Your task to perform on an android device: Check the weather Image 0: 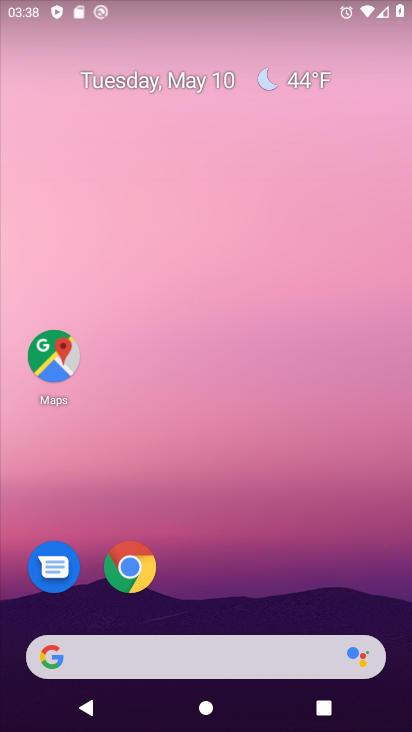
Step 0: drag from (217, 580) to (252, 170)
Your task to perform on an android device: Check the weather Image 1: 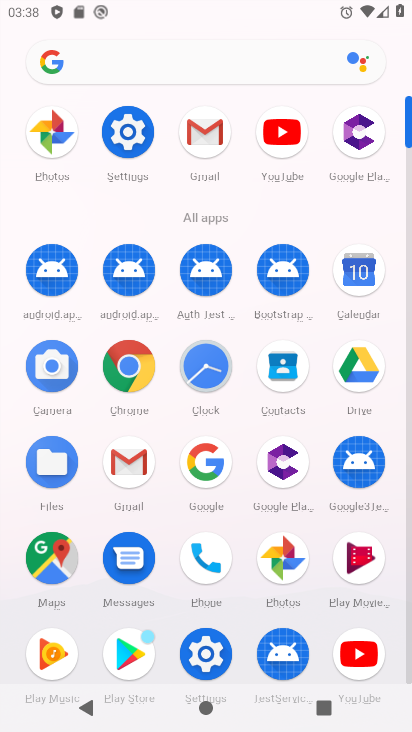
Step 1: click (215, 460)
Your task to perform on an android device: Check the weather Image 2: 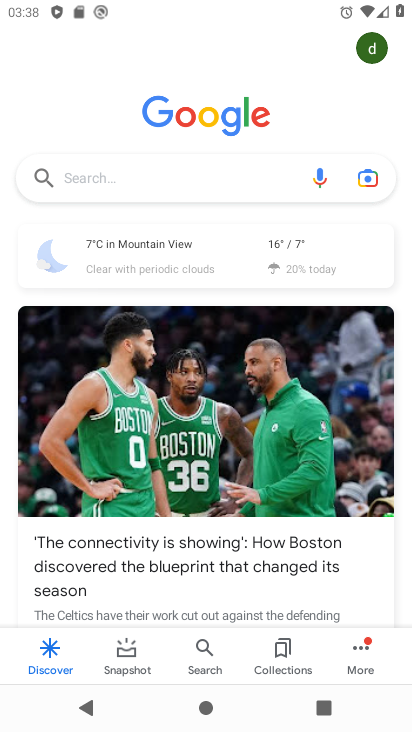
Step 2: click (152, 186)
Your task to perform on an android device: Check the weather Image 3: 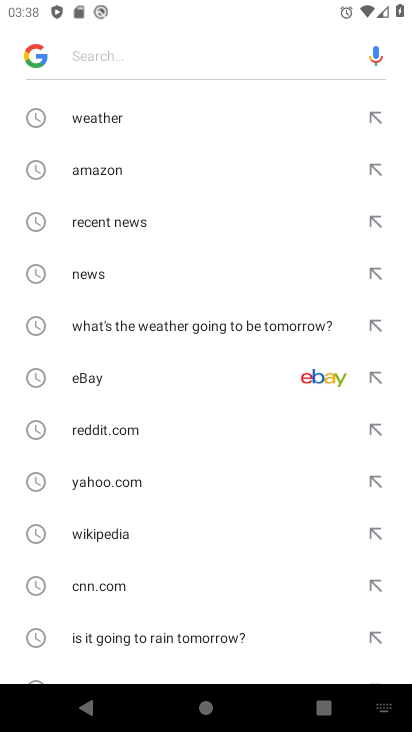
Step 3: click (101, 114)
Your task to perform on an android device: Check the weather Image 4: 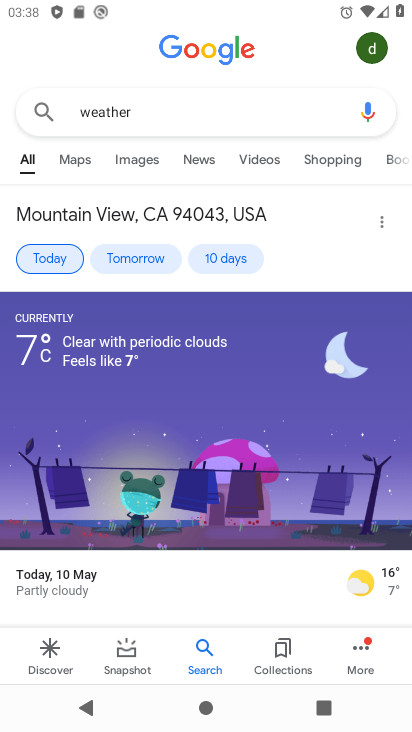
Step 4: task complete